Your task to perform on an android device: Go to ESPN.com Image 0: 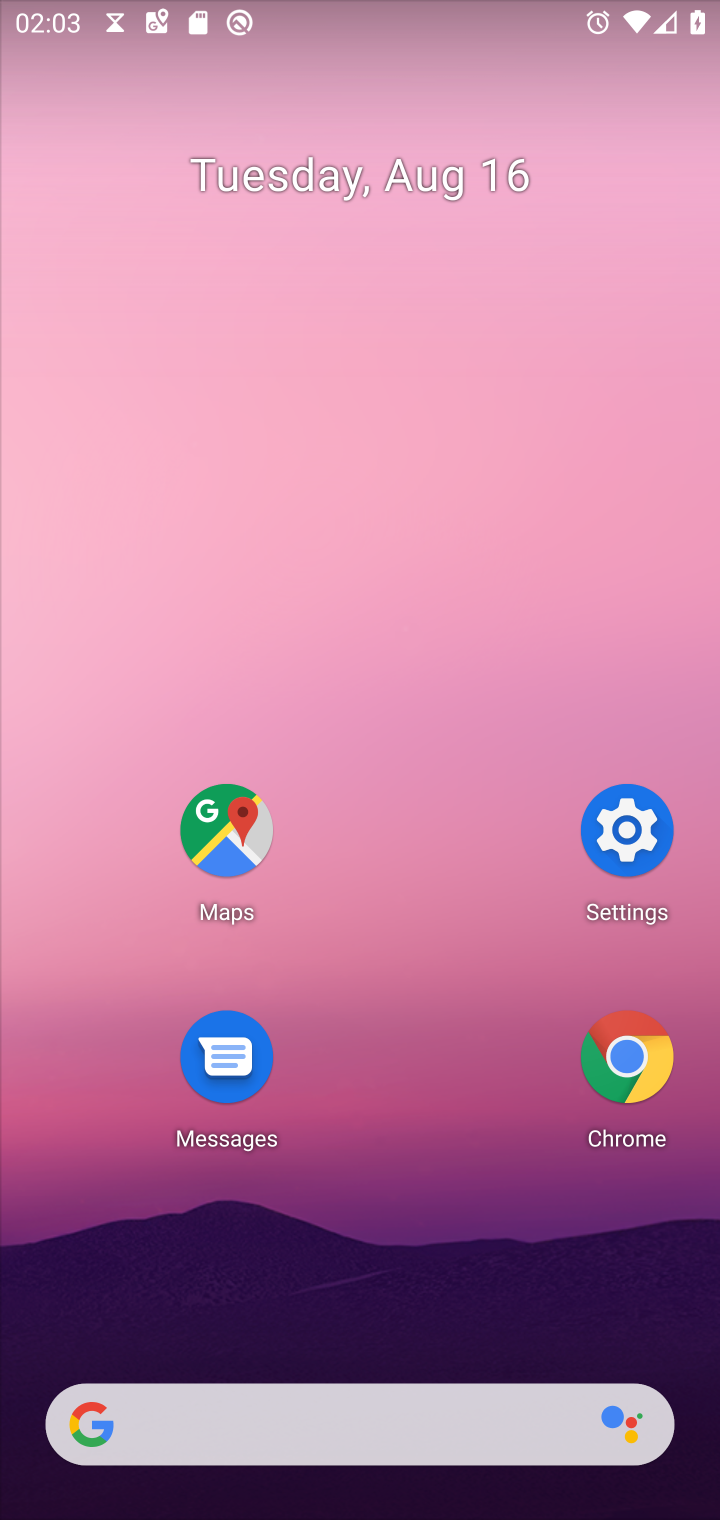
Step 0: press home button
Your task to perform on an android device: Go to ESPN.com Image 1: 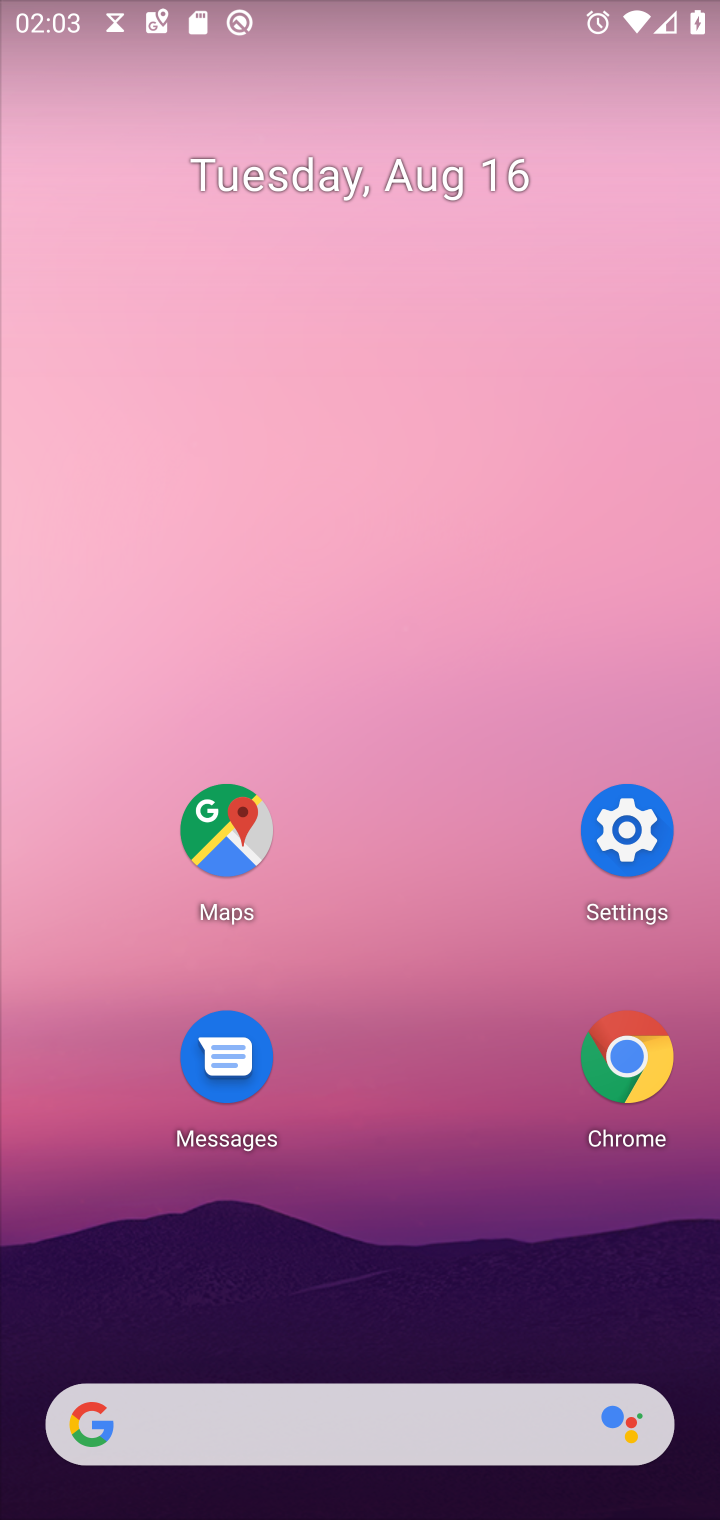
Step 1: click (637, 1065)
Your task to perform on an android device: Go to ESPN.com Image 2: 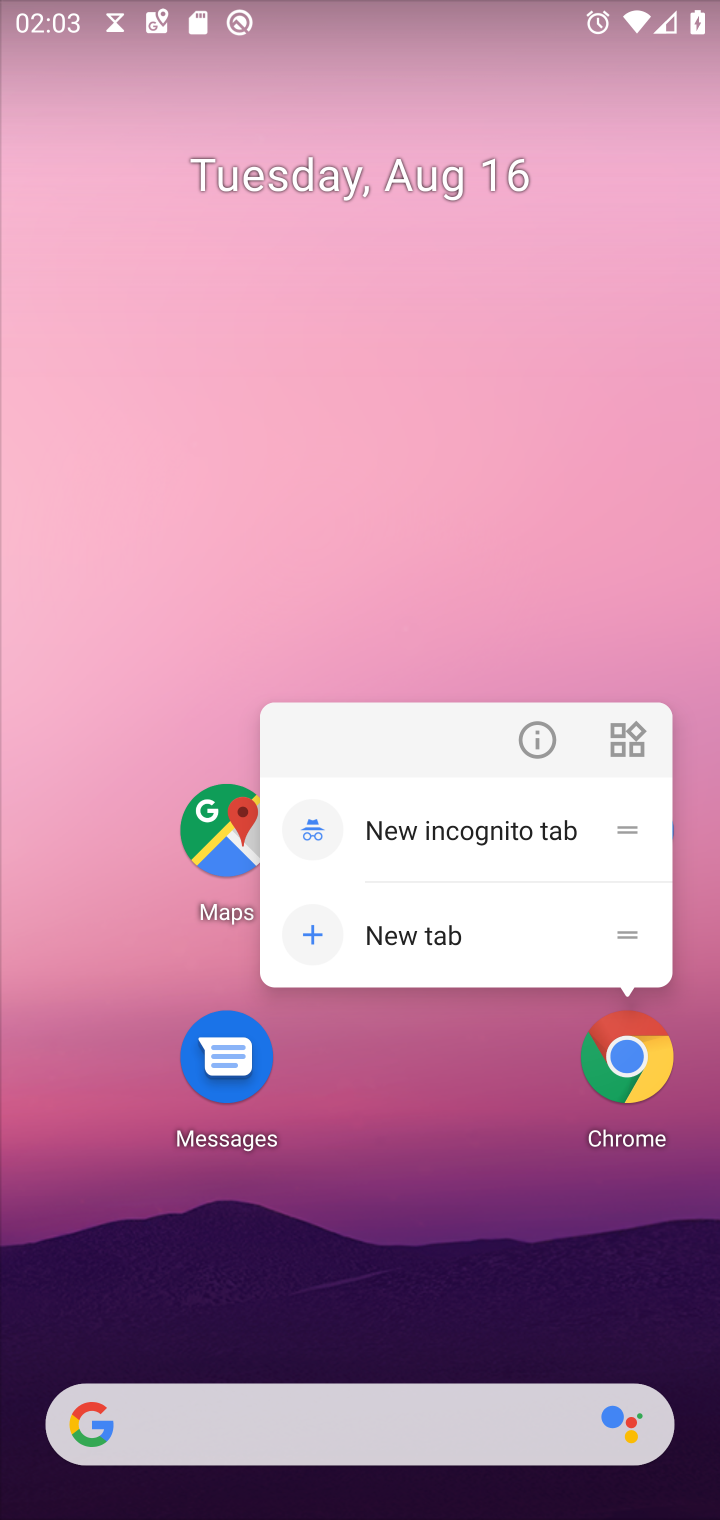
Step 2: click (637, 1069)
Your task to perform on an android device: Go to ESPN.com Image 3: 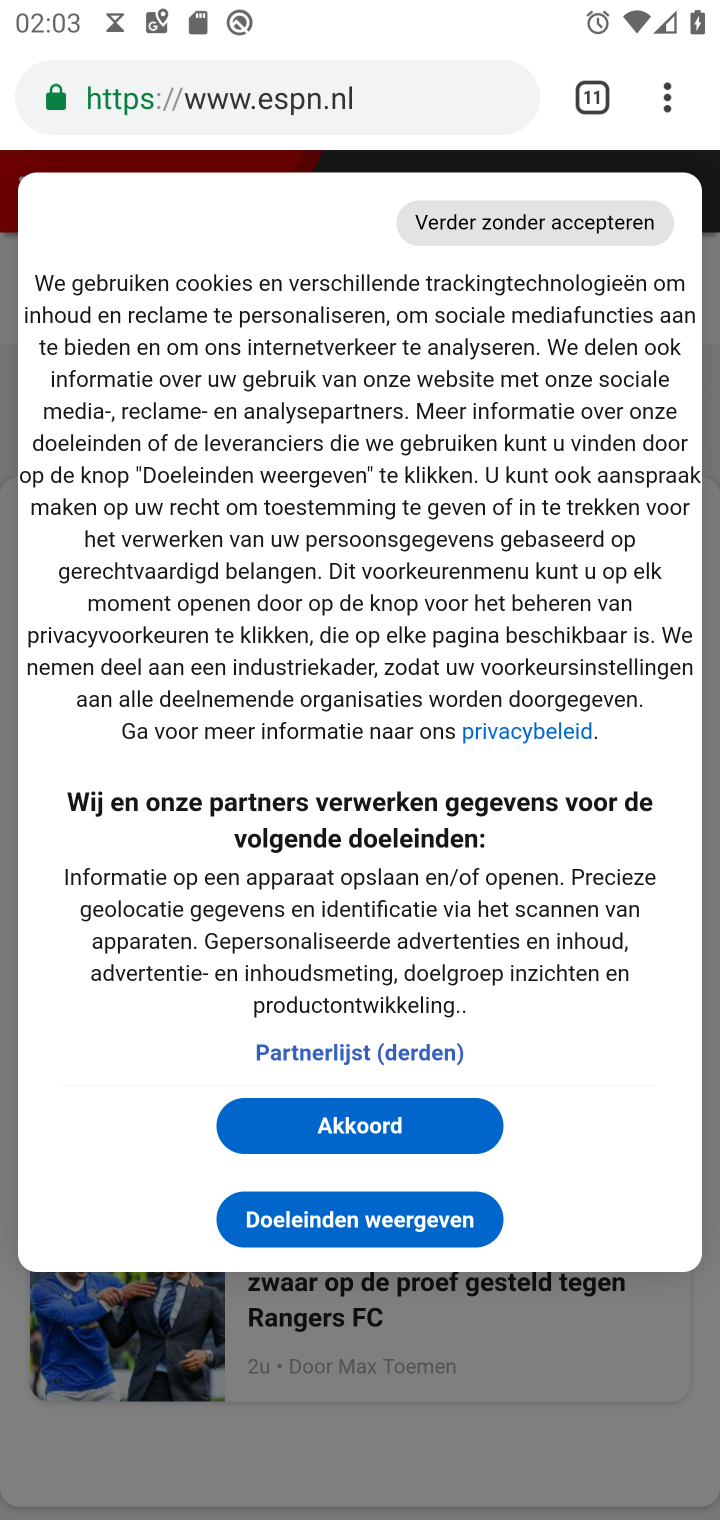
Step 3: drag from (371, 1142) to (587, 267)
Your task to perform on an android device: Go to ESPN.com Image 4: 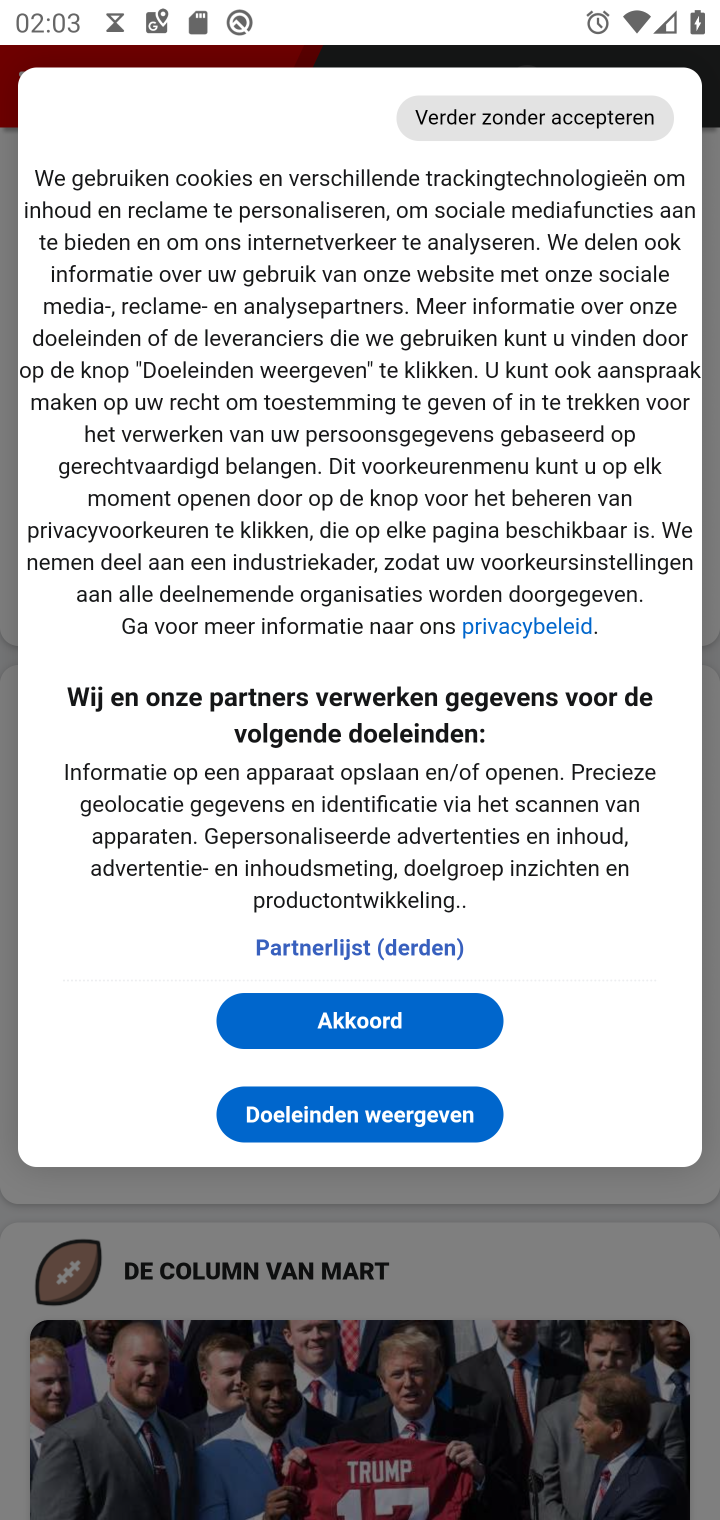
Step 4: click (359, 1021)
Your task to perform on an android device: Go to ESPN.com Image 5: 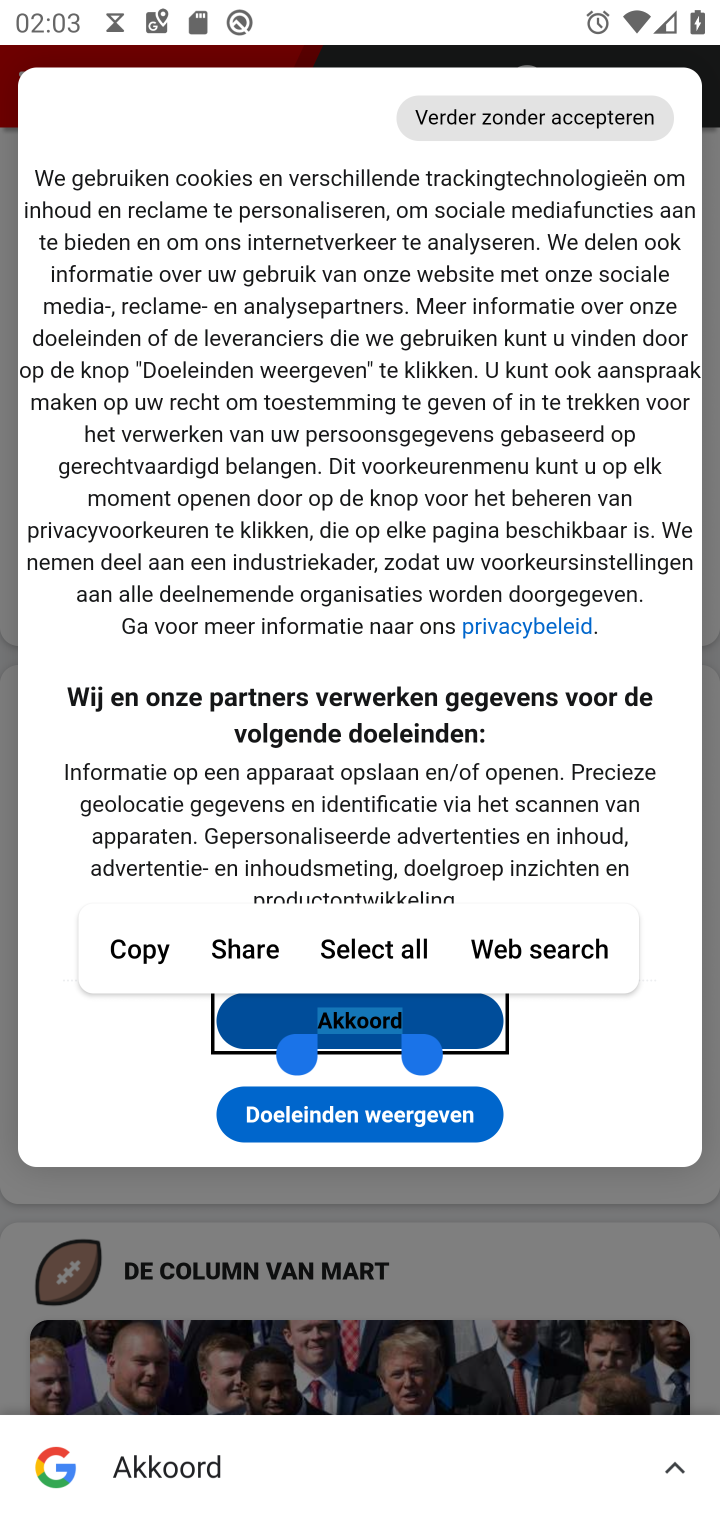
Step 5: click (359, 1021)
Your task to perform on an android device: Go to ESPN.com Image 6: 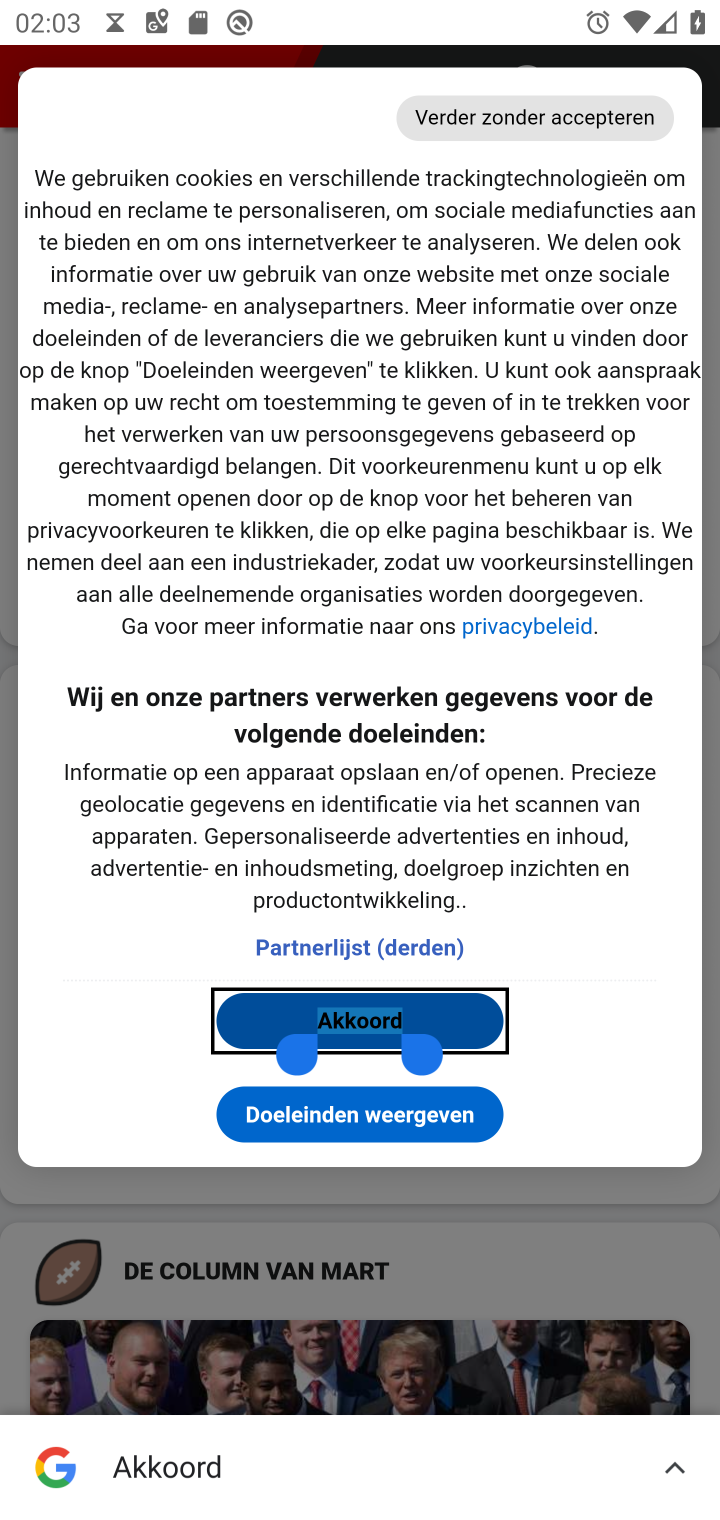
Step 6: click (352, 1020)
Your task to perform on an android device: Go to ESPN.com Image 7: 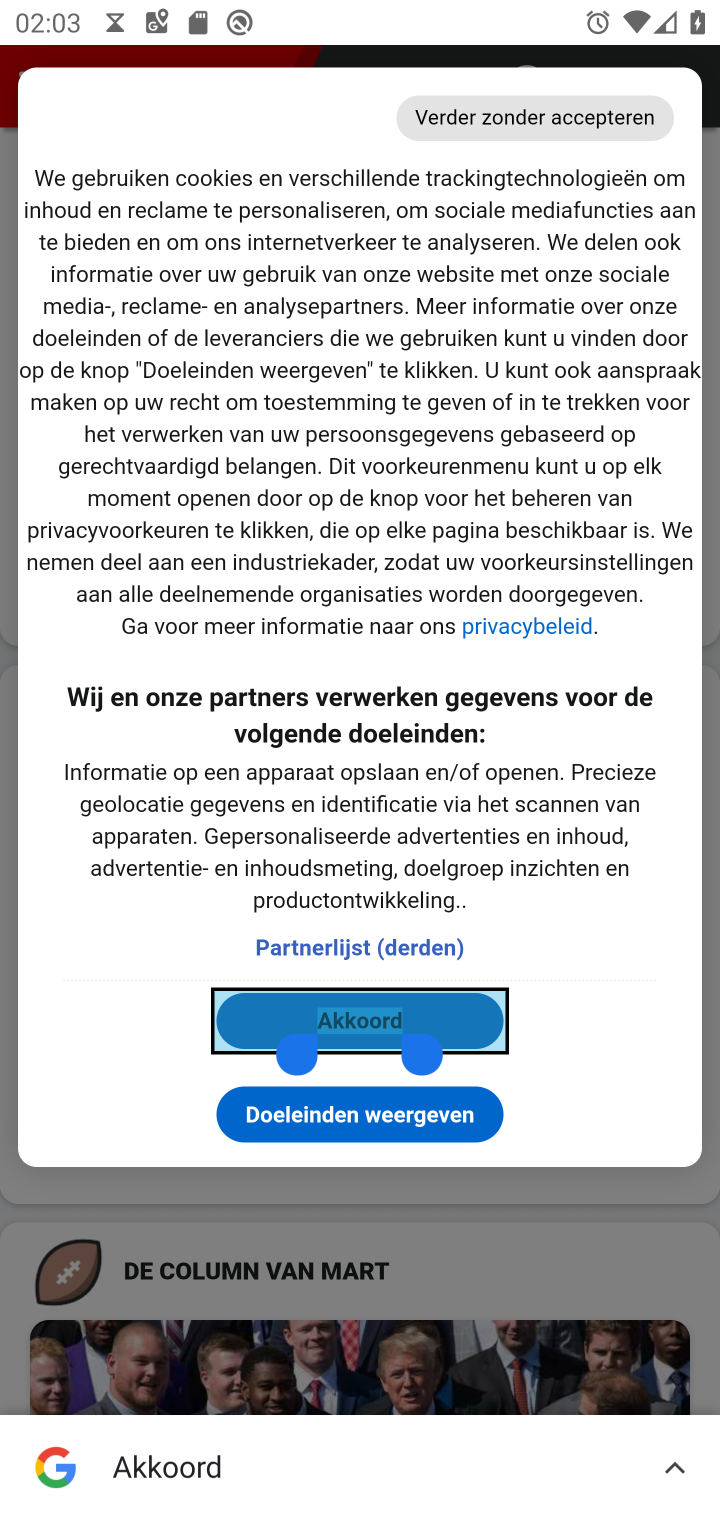
Step 7: task complete